Your task to perform on an android device: Open Chrome and go to settings Image 0: 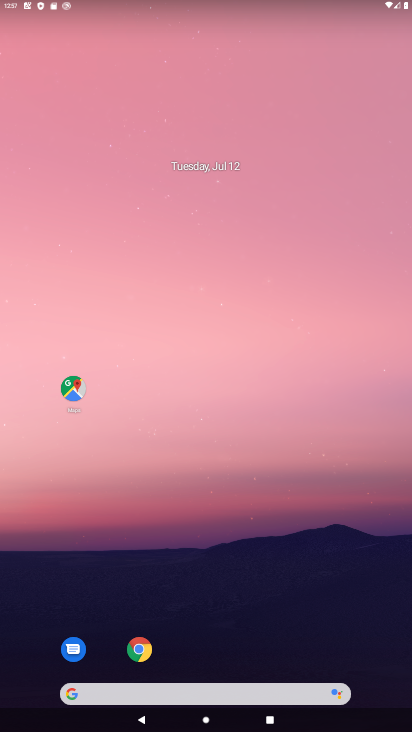
Step 0: click (137, 633)
Your task to perform on an android device: Open Chrome and go to settings Image 1: 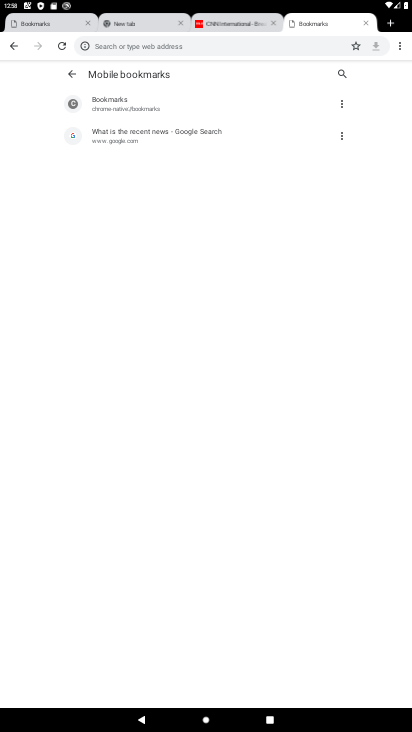
Step 1: click (396, 51)
Your task to perform on an android device: Open Chrome and go to settings Image 2: 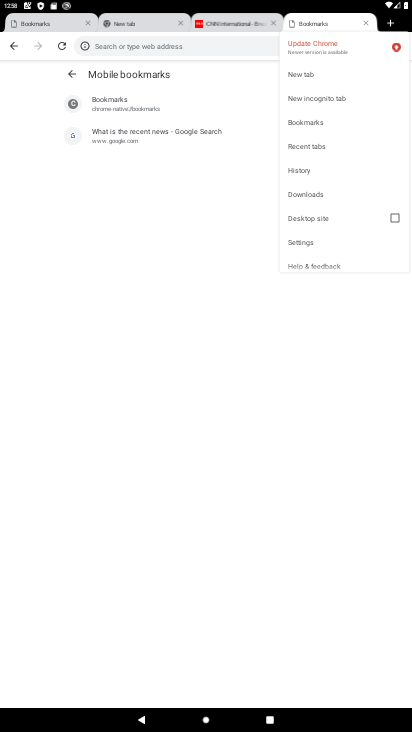
Step 2: click (304, 239)
Your task to perform on an android device: Open Chrome and go to settings Image 3: 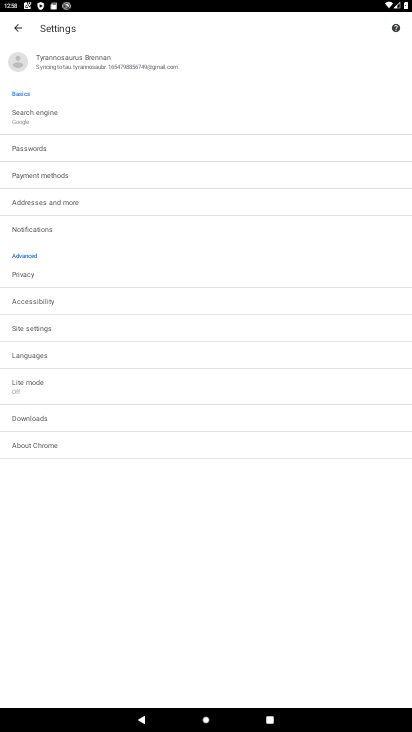
Step 3: task complete